Your task to perform on an android device: allow cookies in the chrome app Image 0: 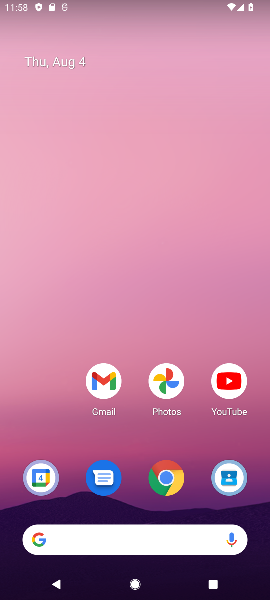
Step 0: drag from (140, 396) to (180, 192)
Your task to perform on an android device: allow cookies in the chrome app Image 1: 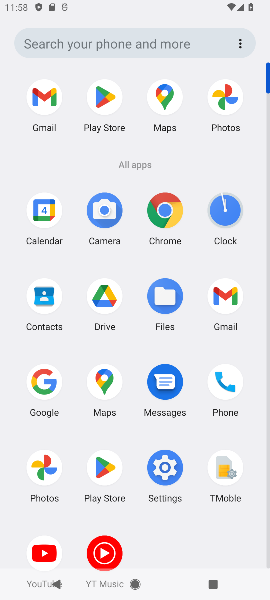
Step 1: click (168, 209)
Your task to perform on an android device: allow cookies in the chrome app Image 2: 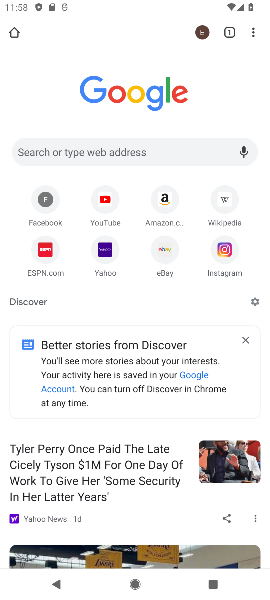
Step 2: drag from (252, 31) to (177, 319)
Your task to perform on an android device: allow cookies in the chrome app Image 3: 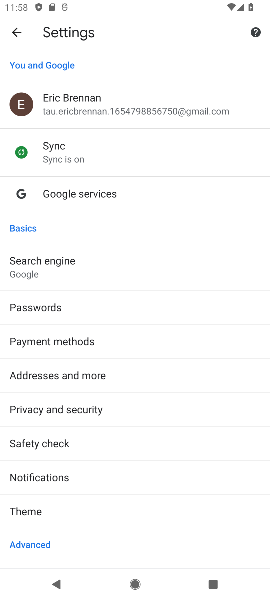
Step 3: drag from (108, 455) to (184, 212)
Your task to perform on an android device: allow cookies in the chrome app Image 4: 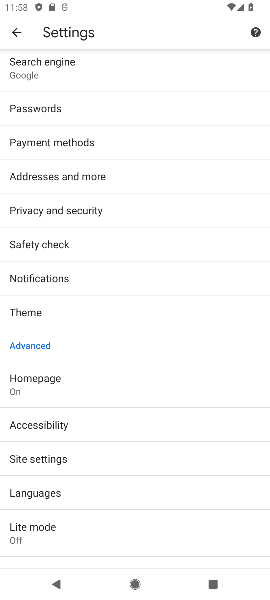
Step 4: click (44, 456)
Your task to perform on an android device: allow cookies in the chrome app Image 5: 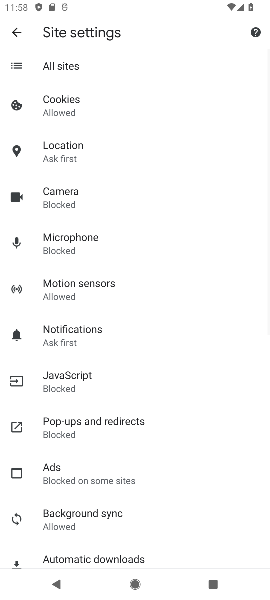
Step 5: click (84, 103)
Your task to perform on an android device: allow cookies in the chrome app Image 6: 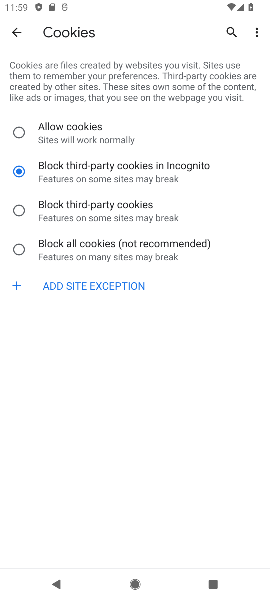
Step 6: click (65, 122)
Your task to perform on an android device: allow cookies in the chrome app Image 7: 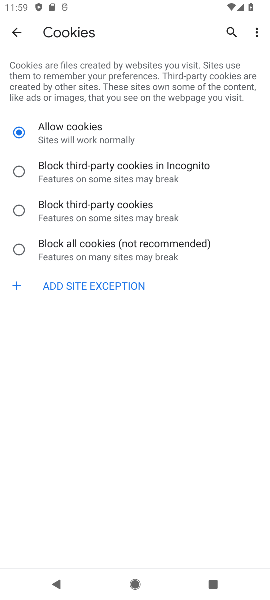
Step 7: task complete